Your task to perform on an android device: search for starred emails in the gmail app Image 0: 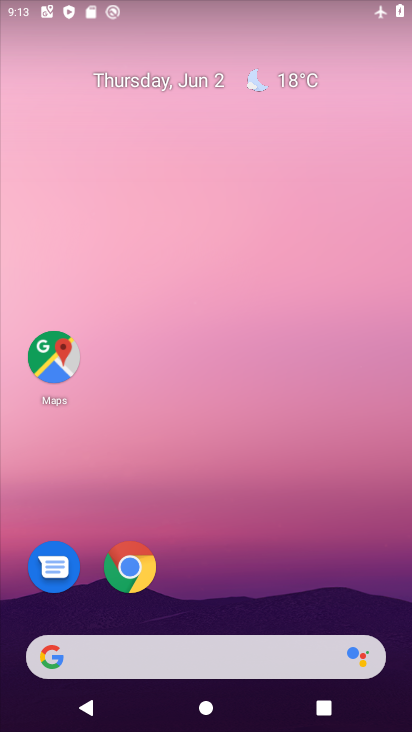
Step 0: drag from (210, 607) to (230, 0)
Your task to perform on an android device: search for starred emails in the gmail app Image 1: 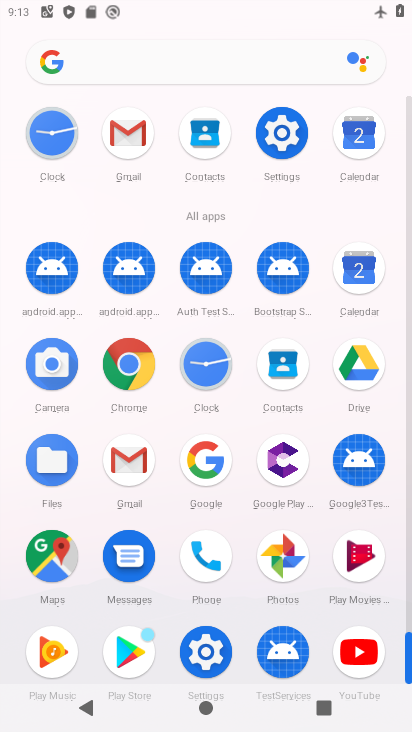
Step 1: click (126, 452)
Your task to perform on an android device: search for starred emails in the gmail app Image 2: 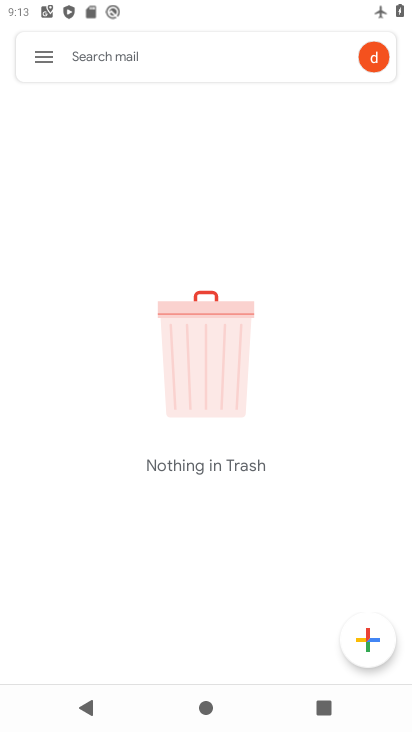
Step 2: click (44, 50)
Your task to perform on an android device: search for starred emails in the gmail app Image 3: 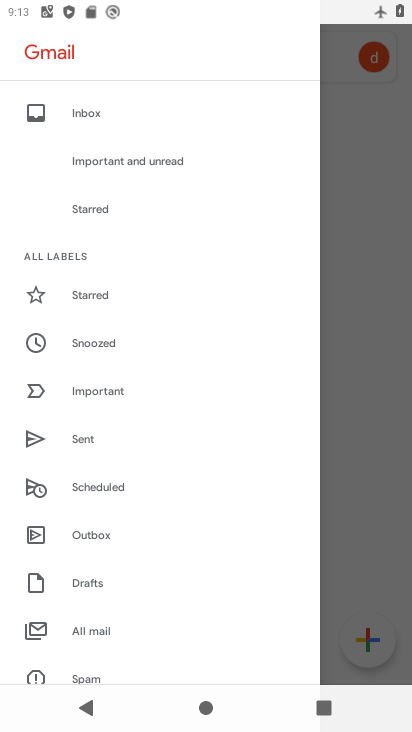
Step 3: click (116, 290)
Your task to perform on an android device: search for starred emails in the gmail app Image 4: 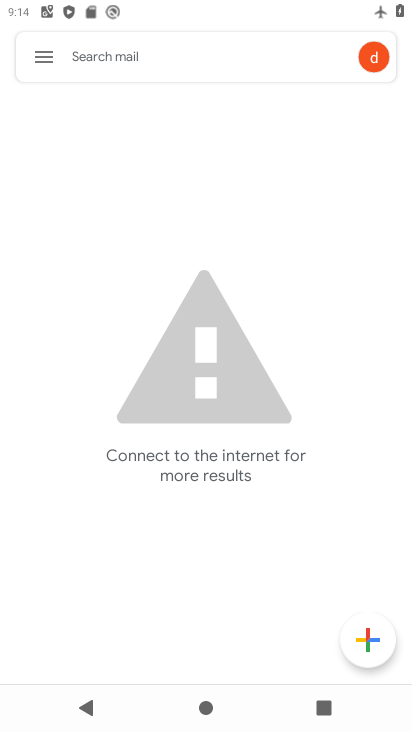
Step 4: task complete